Your task to perform on an android device: Open Google Chrome Image 0: 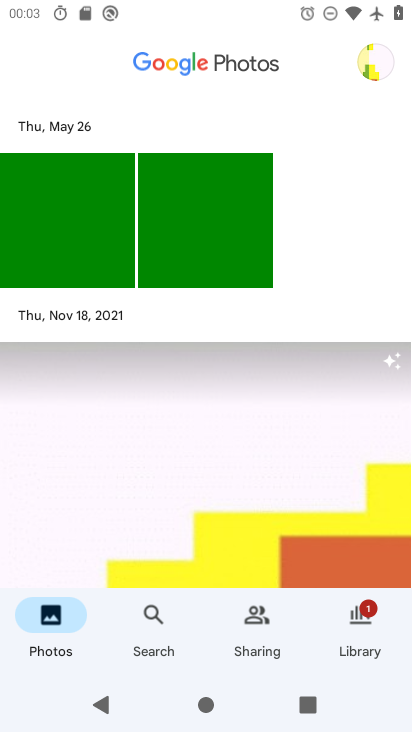
Step 0: drag from (225, 512) to (286, 25)
Your task to perform on an android device: Open Google Chrome Image 1: 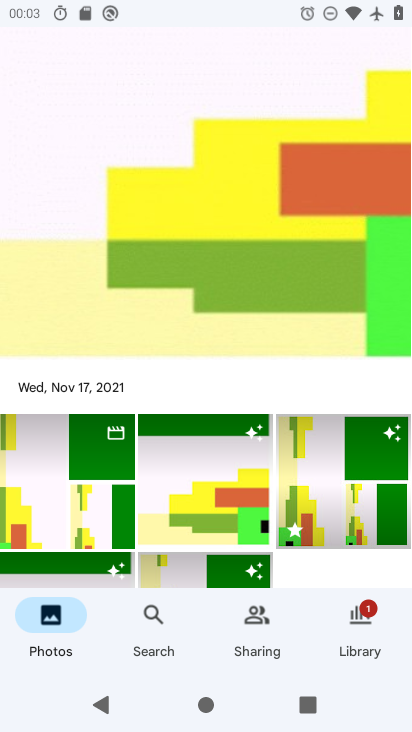
Step 1: press home button
Your task to perform on an android device: Open Google Chrome Image 2: 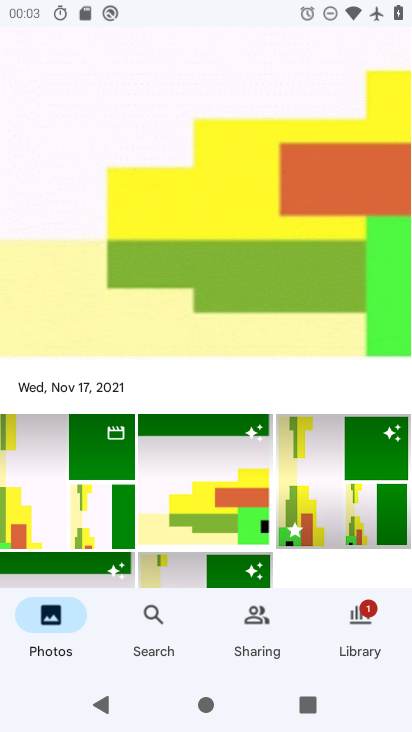
Step 2: drag from (164, 515) to (228, 283)
Your task to perform on an android device: Open Google Chrome Image 3: 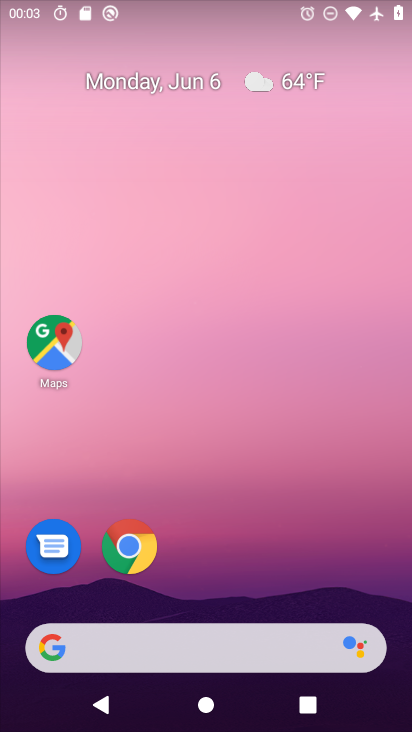
Step 3: click (124, 533)
Your task to perform on an android device: Open Google Chrome Image 4: 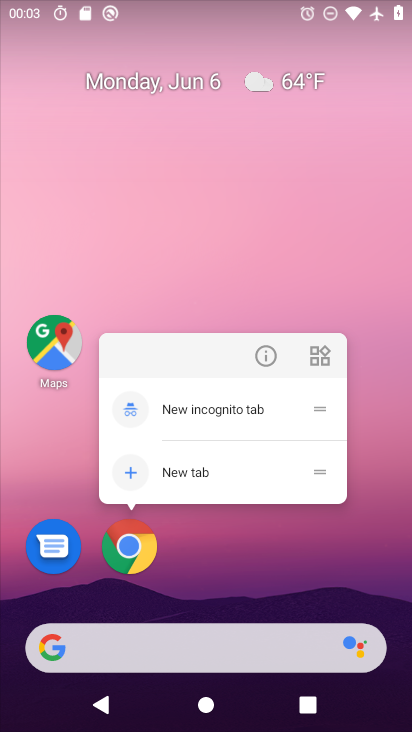
Step 4: click (261, 357)
Your task to perform on an android device: Open Google Chrome Image 5: 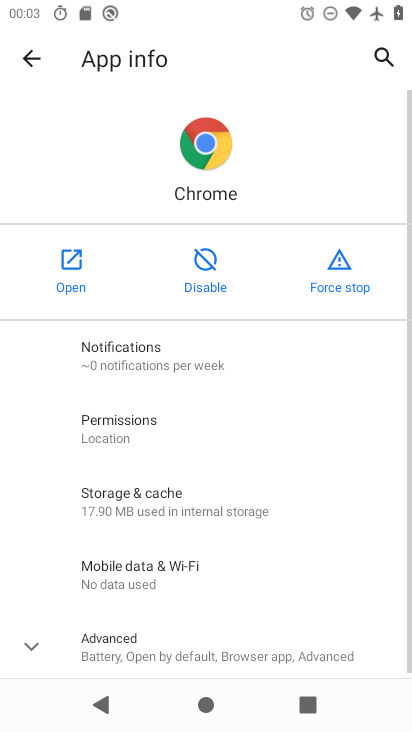
Step 5: click (68, 270)
Your task to perform on an android device: Open Google Chrome Image 6: 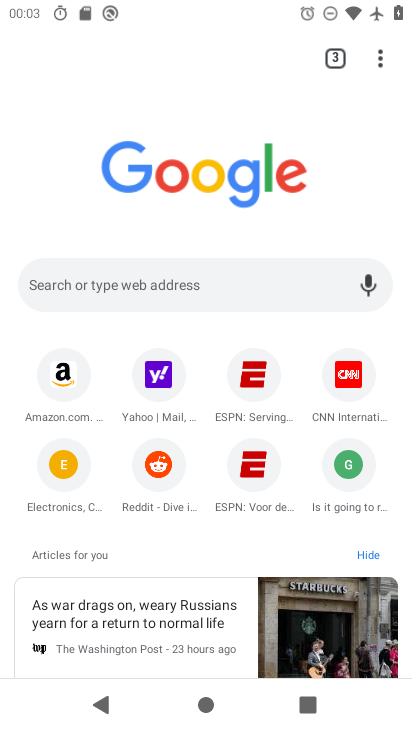
Step 6: task complete